Your task to perform on an android device: Go to CNN.com Image 0: 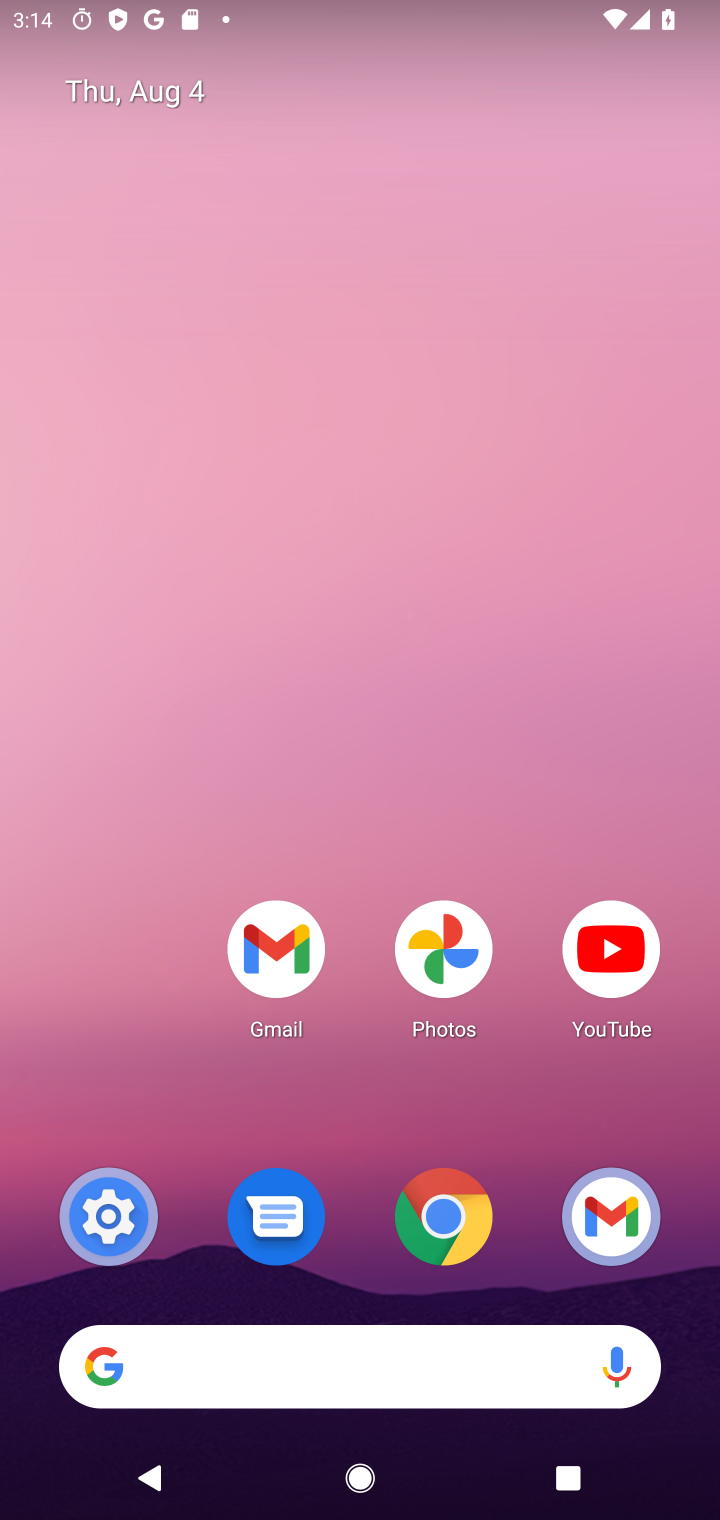
Step 0: click (449, 1196)
Your task to perform on an android device: Go to CNN.com Image 1: 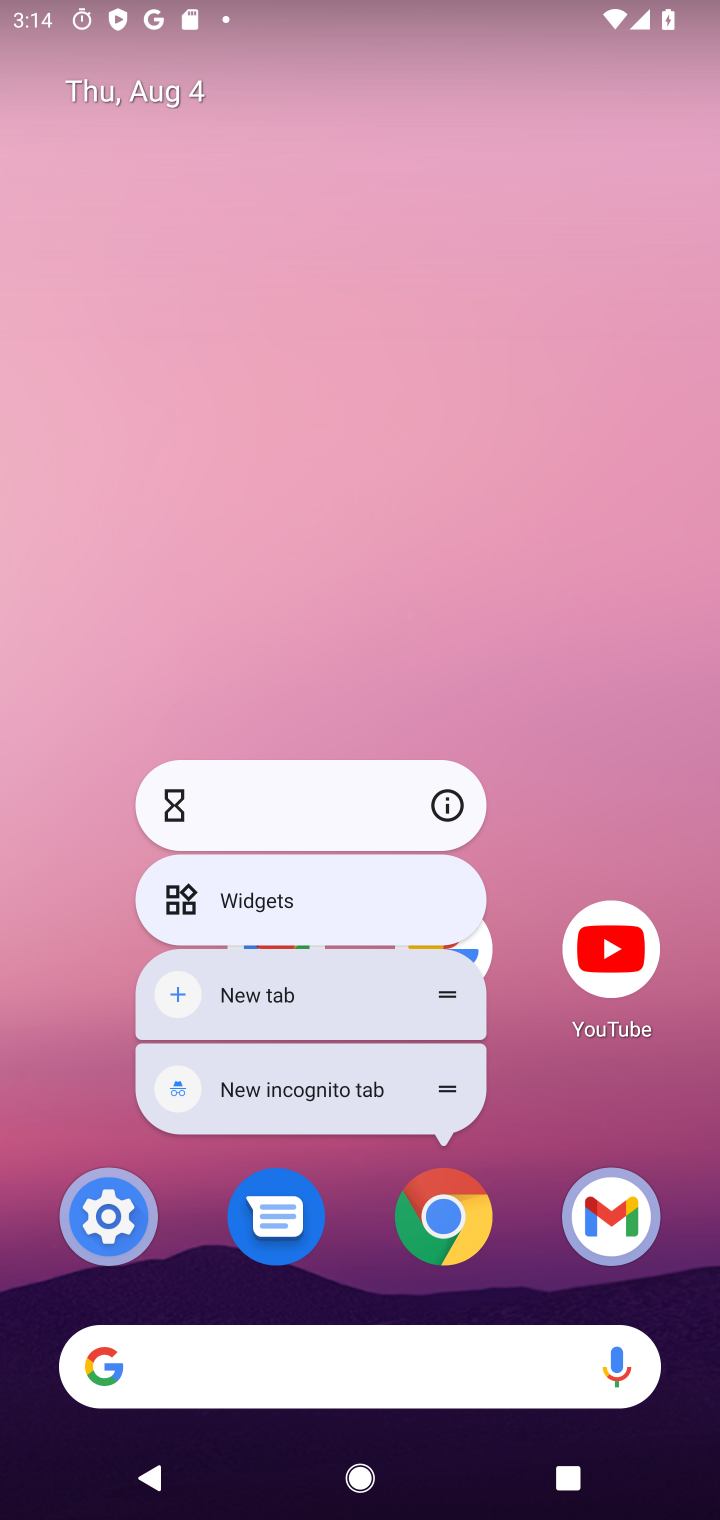
Step 1: click (436, 1217)
Your task to perform on an android device: Go to CNN.com Image 2: 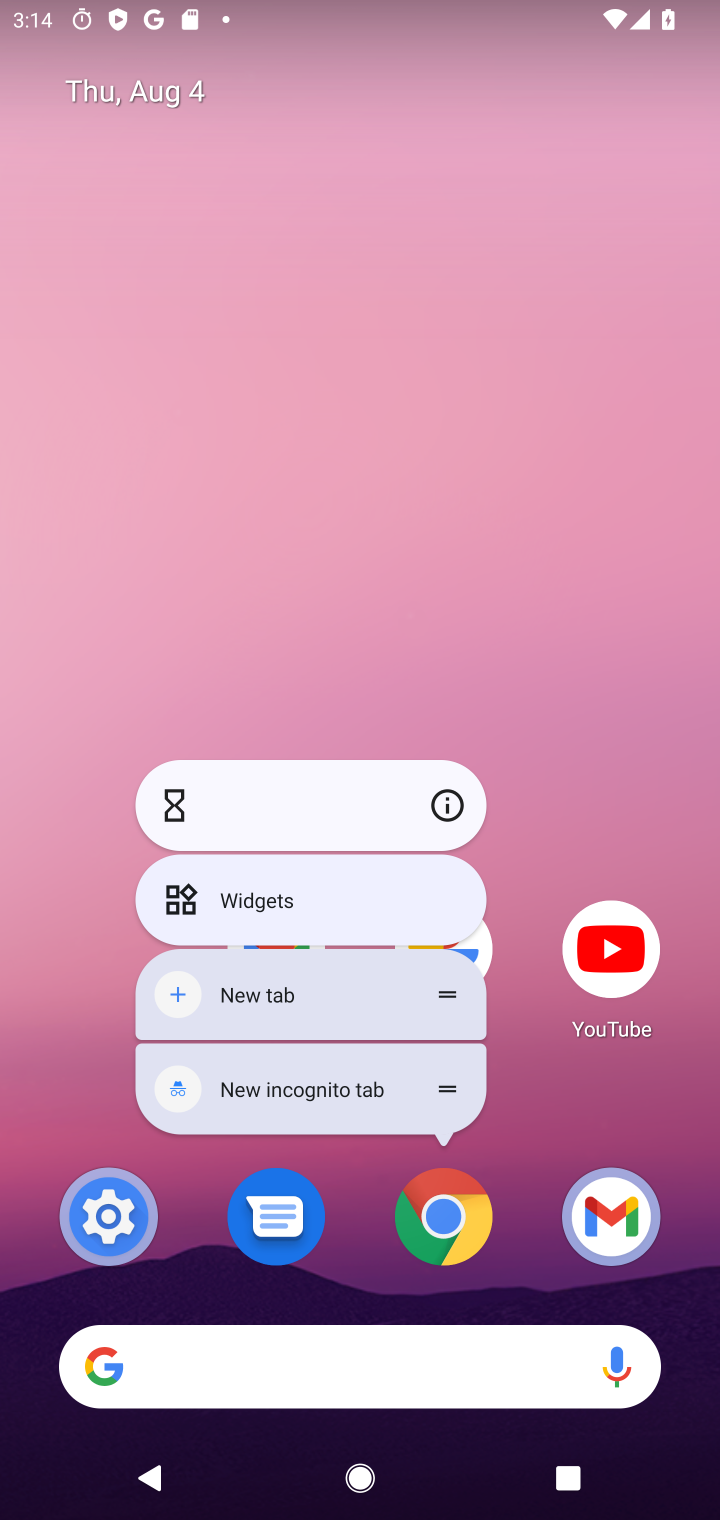
Step 2: click (449, 1215)
Your task to perform on an android device: Go to CNN.com Image 3: 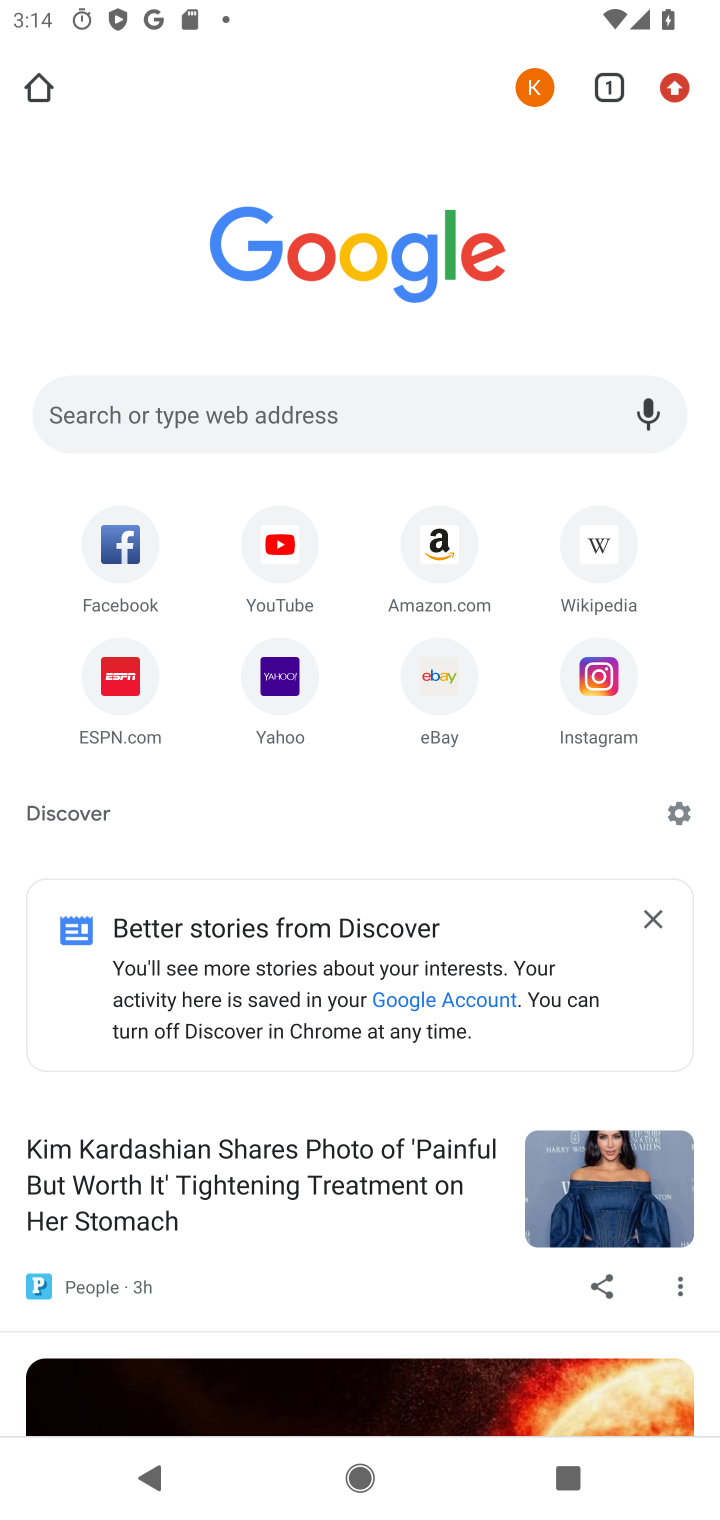
Step 3: click (186, 414)
Your task to perform on an android device: Go to CNN.com Image 4: 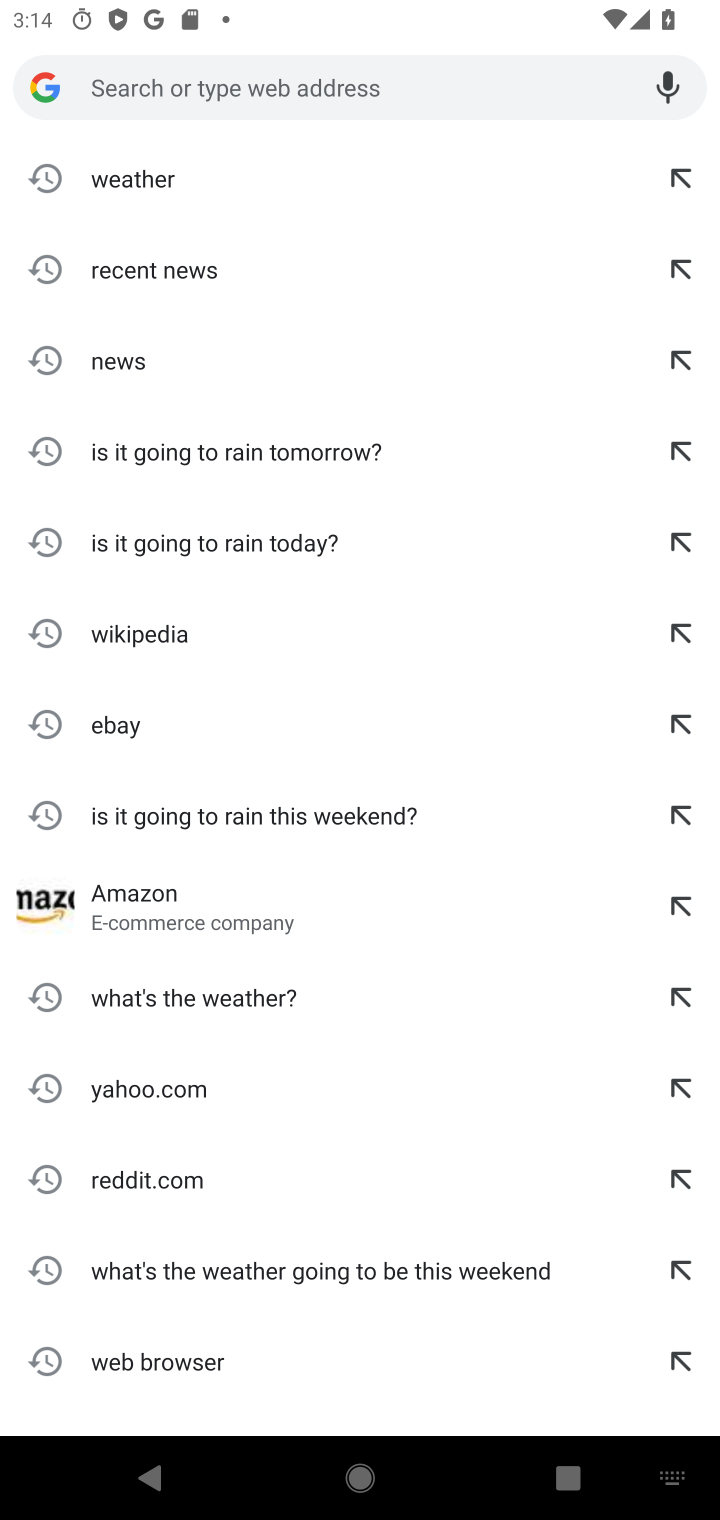
Step 4: type "cnn.com"
Your task to perform on an android device: Go to CNN.com Image 5: 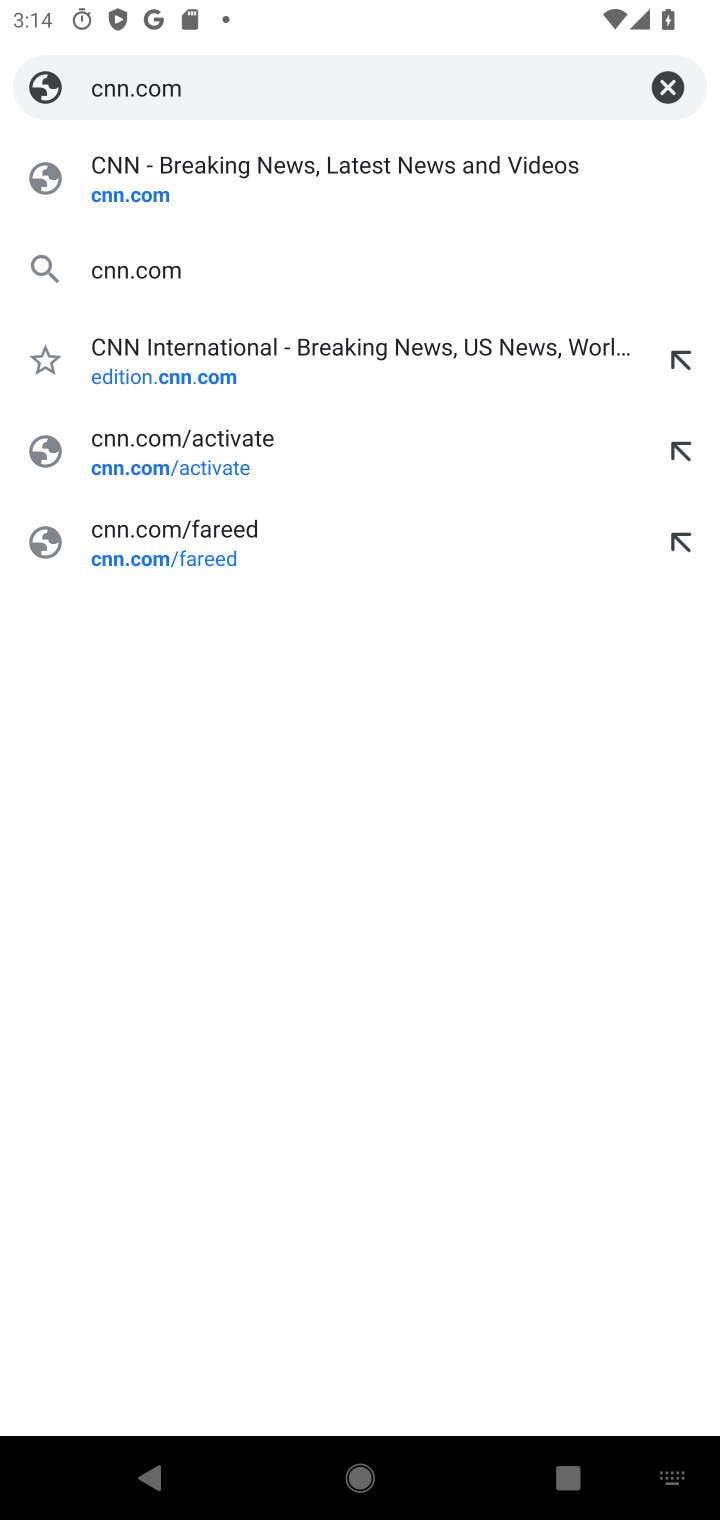
Step 5: click (345, 190)
Your task to perform on an android device: Go to CNN.com Image 6: 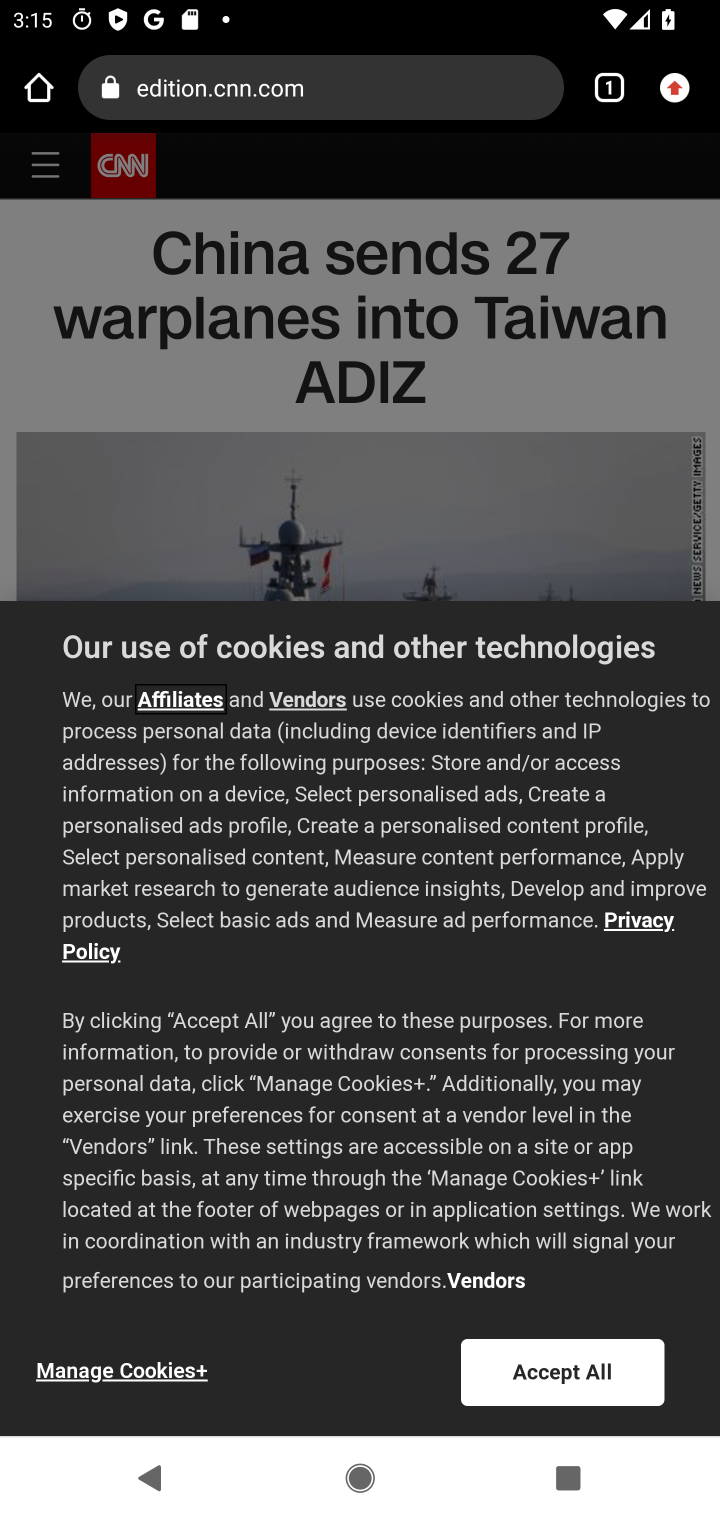
Step 6: task complete